Your task to perform on an android device: Go to Reddit.com Image 0: 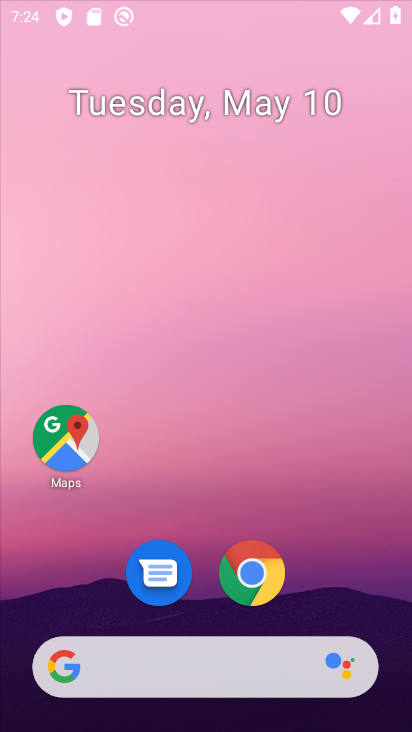
Step 0: click (357, 130)
Your task to perform on an android device: Go to Reddit.com Image 1: 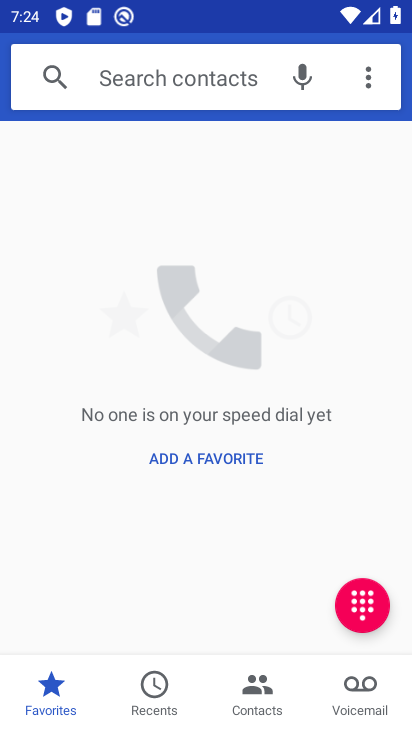
Step 1: press home button
Your task to perform on an android device: Go to Reddit.com Image 2: 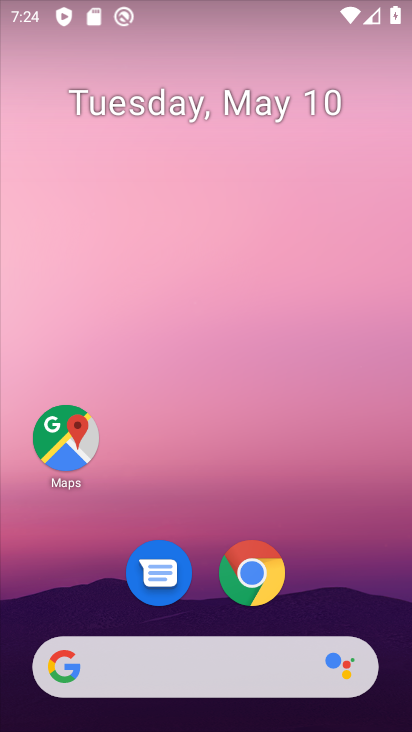
Step 2: drag from (361, 562) to (319, 163)
Your task to perform on an android device: Go to Reddit.com Image 3: 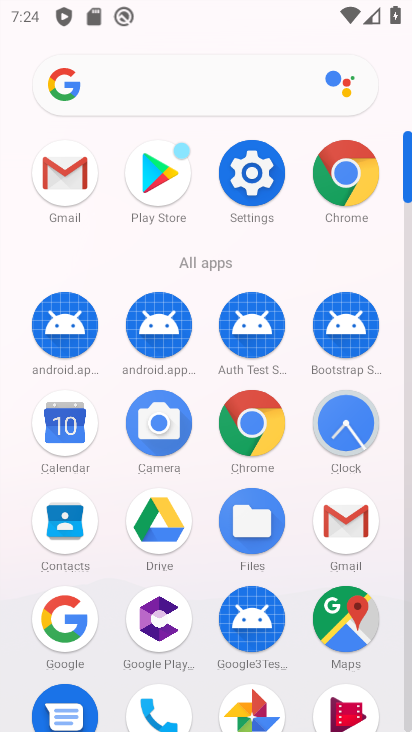
Step 3: click (253, 455)
Your task to perform on an android device: Go to Reddit.com Image 4: 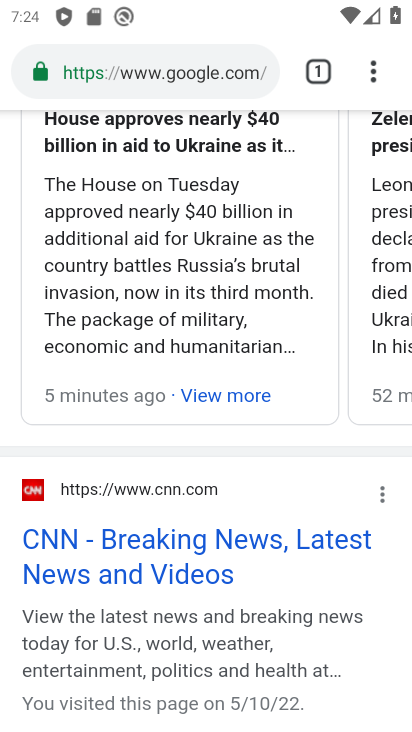
Step 4: click (179, 73)
Your task to perform on an android device: Go to Reddit.com Image 5: 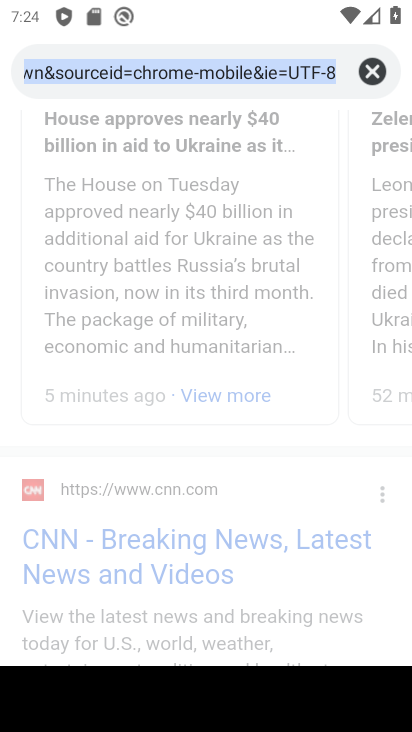
Step 5: click (364, 65)
Your task to perform on an android device: Go to Reddit.com Image 6: 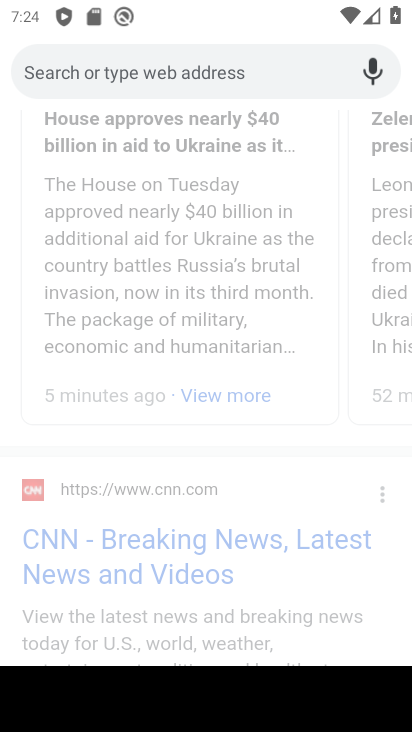
Step 6: type "reddit.com"
Your task to perform on an android device: Go to Reddit.com Image 7: 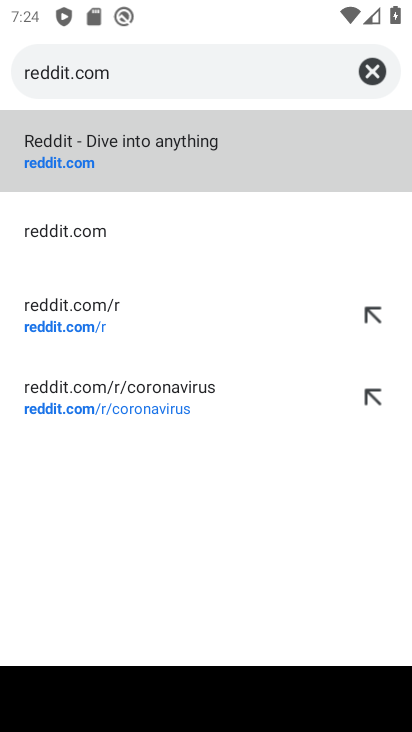
Step 7: click (47, 153)
Your task to perform on an android device: Go to Reddit.com Image 8: 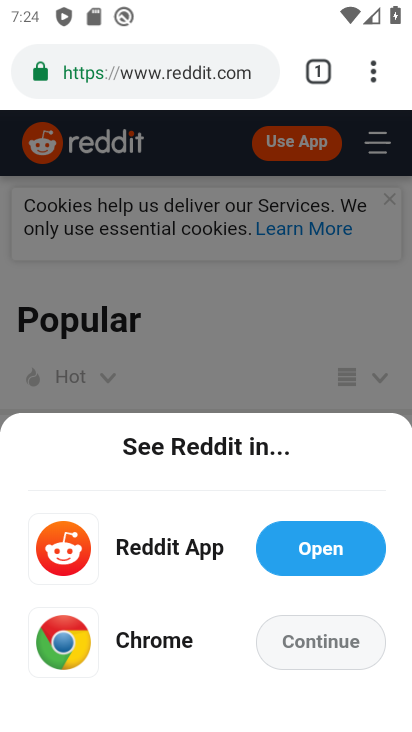
Step 8: task complete